Your task to perform on an android device: Open maps Image 0: 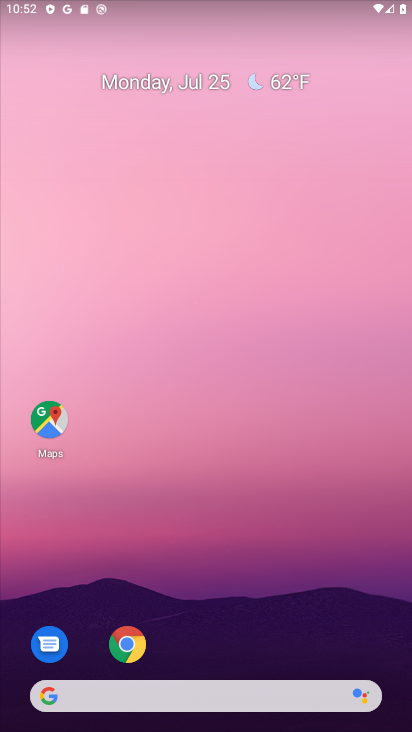
Step 0: click (45, 431)
Your task to perform on an android device: Open maps Image 1: 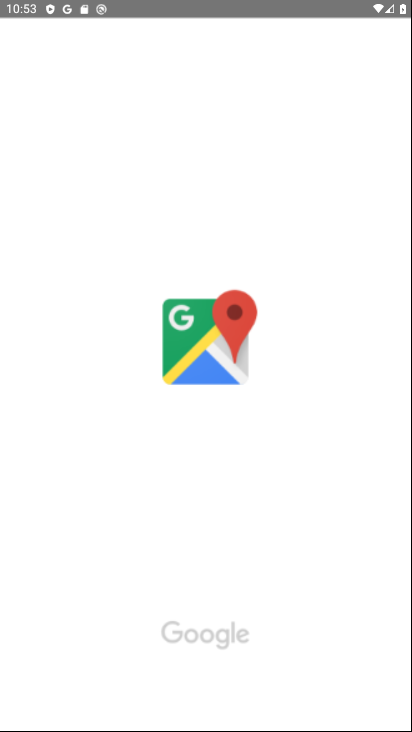
Step 1: task complete